Your task to perform on an android device: turn off location Image 0: 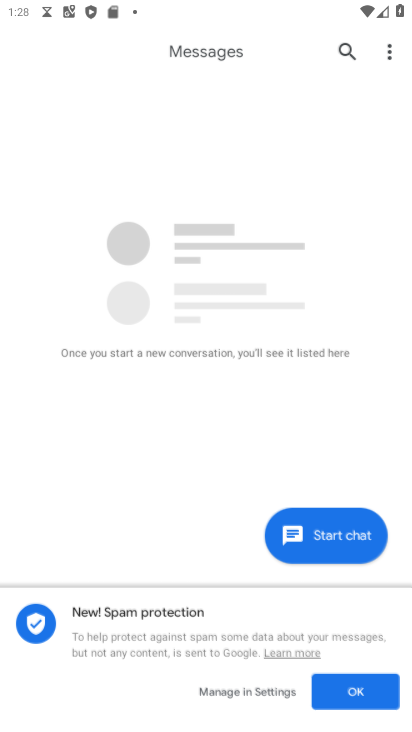
Step 0: press home button
Your task to perform on an android device: turn off location Image 1: 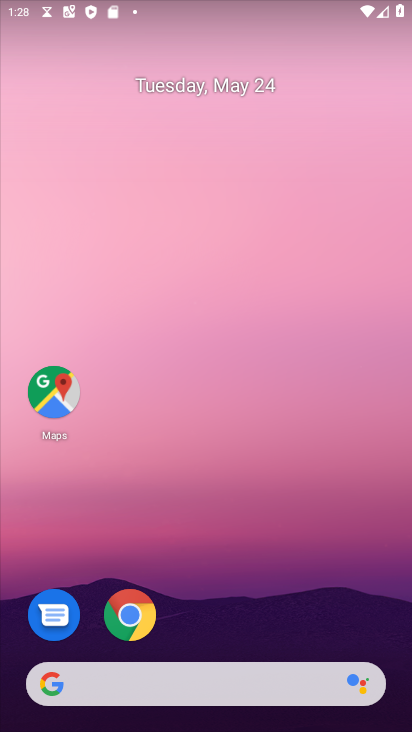
Step 1: press home button
Your task to perform on an android device: turn off location Image 2: 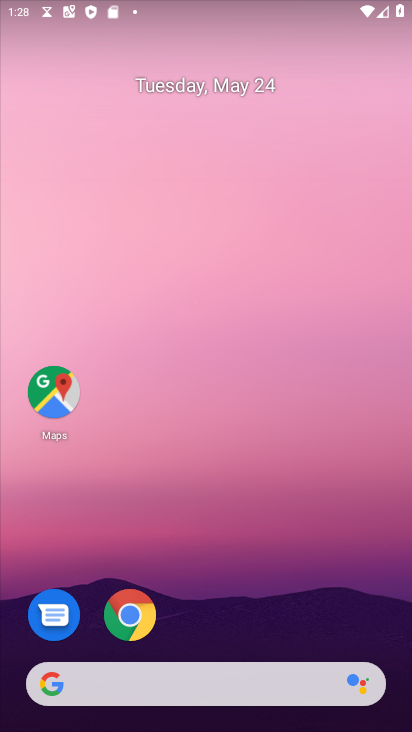
Step 2: drag from (216, 642) to (259, 0)
Your task to perform on an android device: turn off location Image 3: 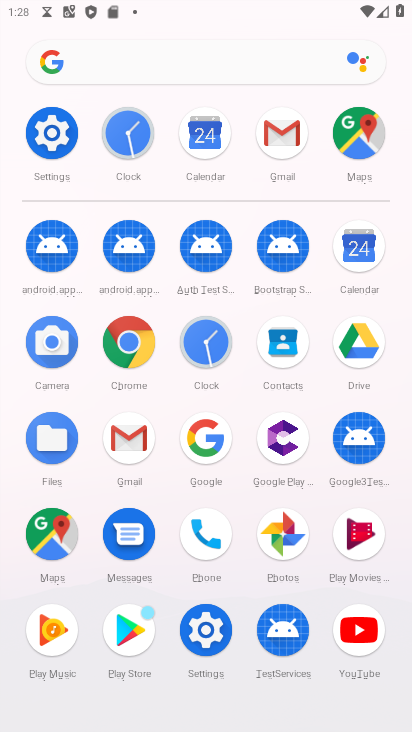
Step 3: click (49, 126)
Your task to perform on an android device: turn off location Image 4: 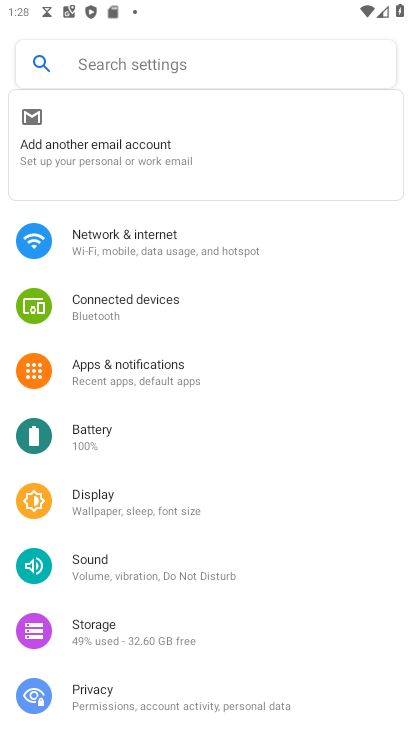
Step 4: drag from (166, 678) to (191, 241)
Your task to perform on an android device: turn off location Image 5: 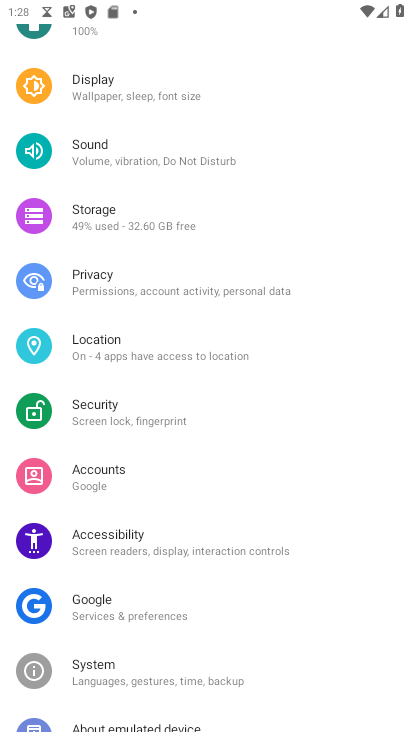
Step 5: click (135, 334)
Your task to perform on an android device: turn off location Image 6: 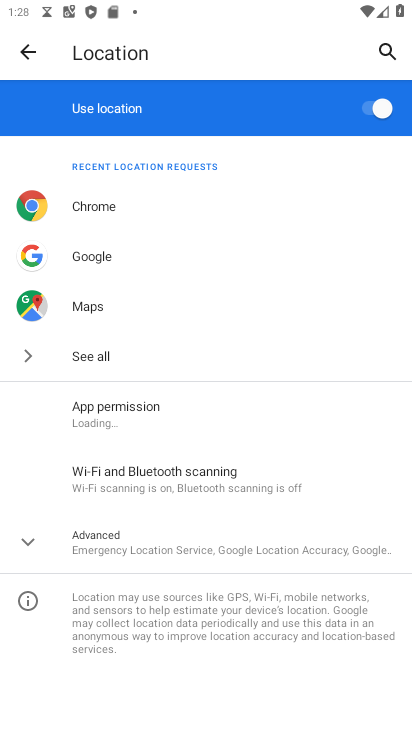
Step 6: click (371, 105)
Your task to perform on an android device: turn off location Image 7: 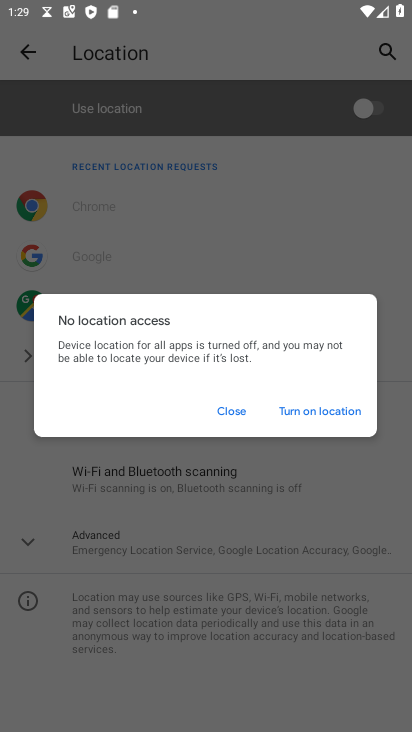
Step 7: task complete